Your task to perform on an android device: turn off picture-in-picture Image 0: 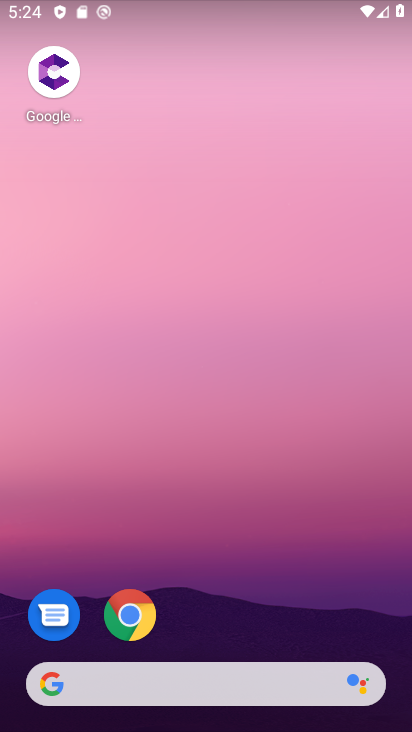
Step 0: click (134, 605)
Your task to perform on an android device: turn off picture-in-picture Image 1: 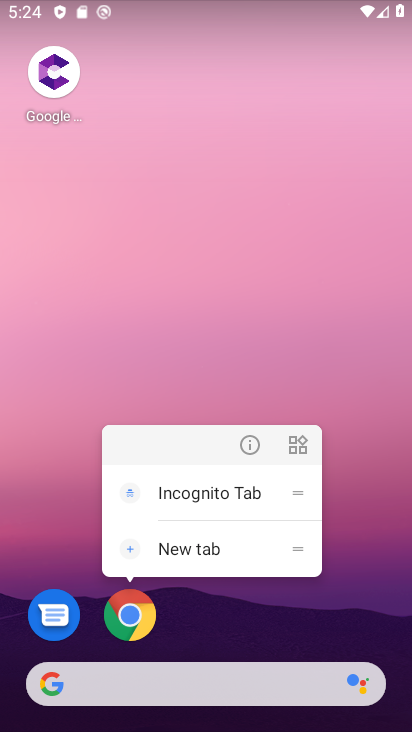
Step 1: click (252, 452)
Your task to perform on an android device: turn off picture-in-picture Image 2: 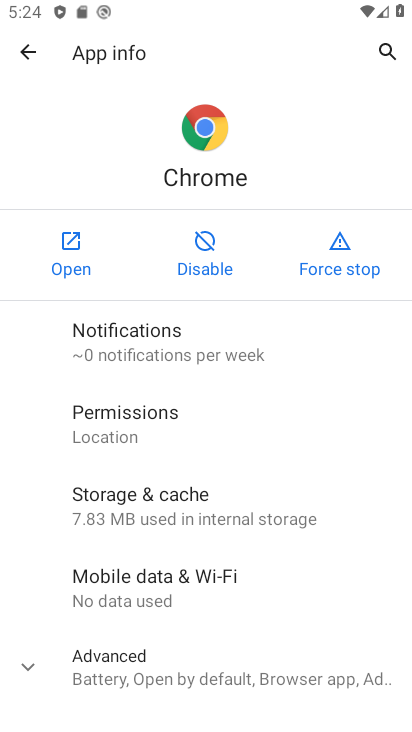
Step 2: drag from (183, 580) to (214, 328)
Your task to perform on an android device: turn off picture-in-picture Image 3: 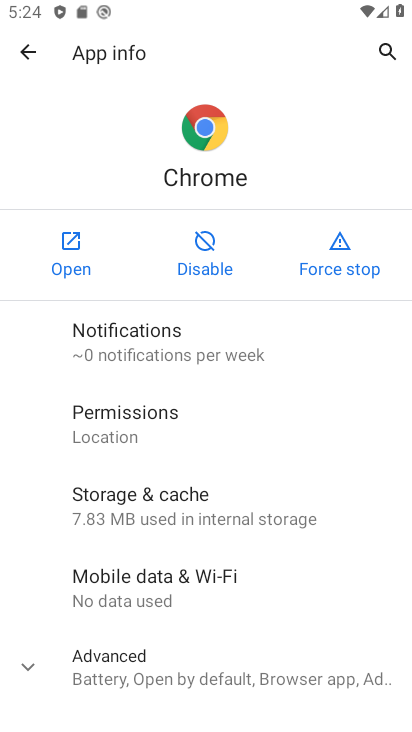
Step 3: click (98, 685)
Your task to perform on an android device: turn off picture-in-picture Image 4: 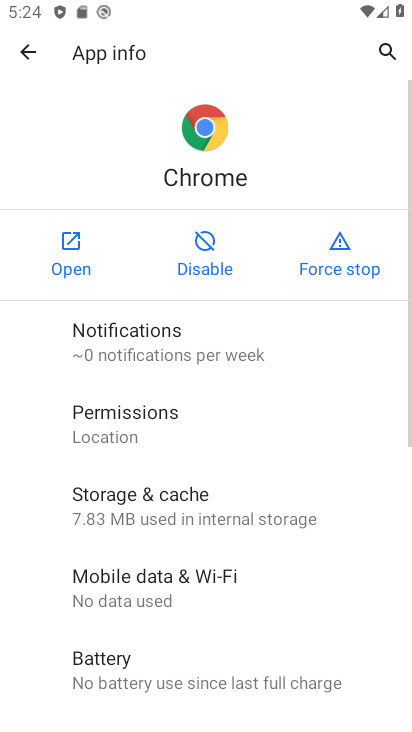
Step 4: drag from (125, 653) to (172, 247)
Your task to perform on an android device: turn off picture-in-picture Image 5: 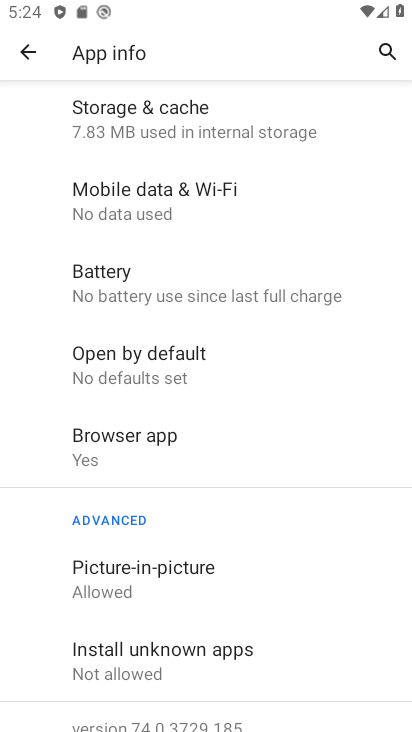
Step 5: click (161, 588)
Your task to perform on an android device: turn off picture-in-picture Image 6: 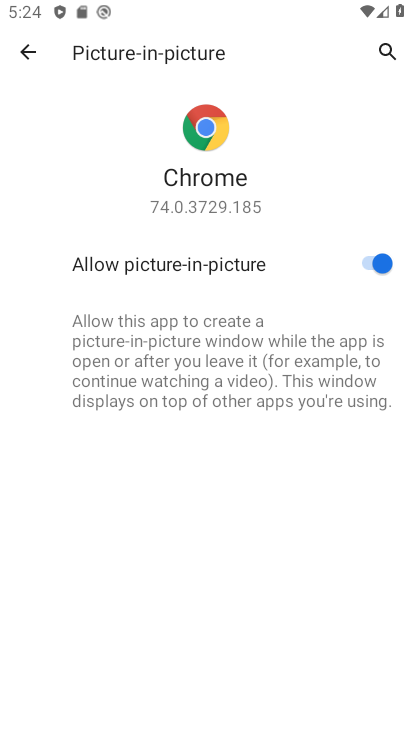
Step 6: click (364, 267)
Your task to perform on an android device: turn off picture-in-picture Image 7: 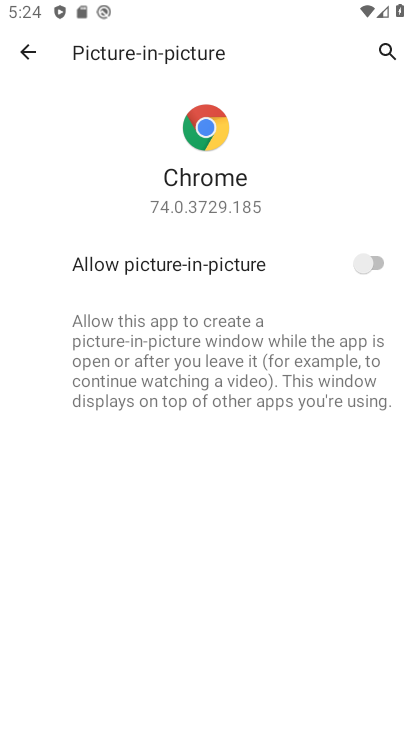
Step 7: task complete